Your task to perform on an android device: Do I have any events this weekend? Image 0: 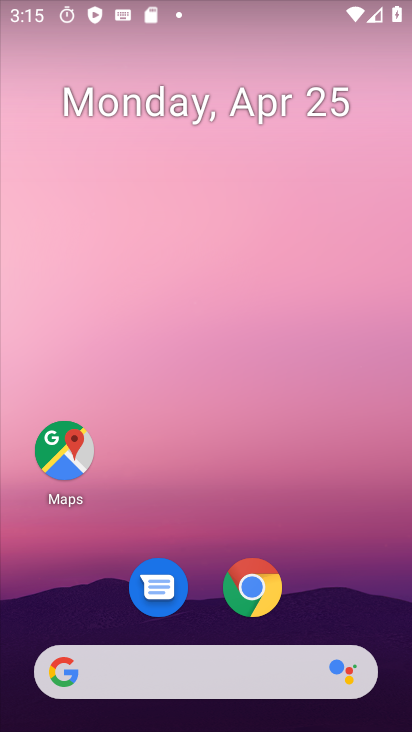
Step 0: drag from (348, 575) to (306, 126)
Your task to perform on an android device: Do I have any events this weekend? Image 1: 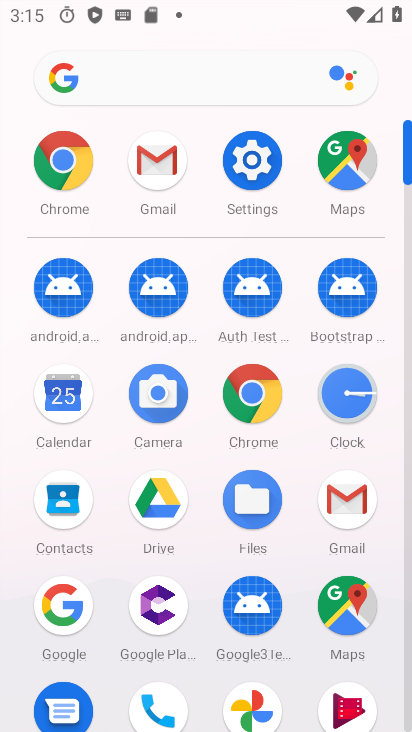
Step 1: click (63, 383)
Your task to perform on an android device: Do I have any events this weekend? Image 2: 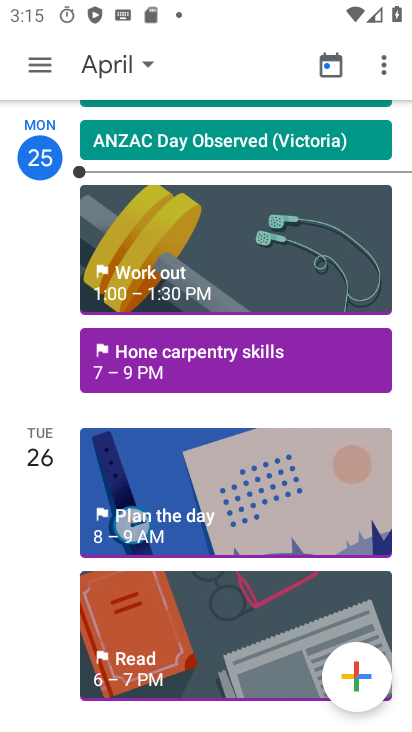
Step 2: click (116, 64)
Your task to perform on an android device: Do I have any events this weekend? Image 3: 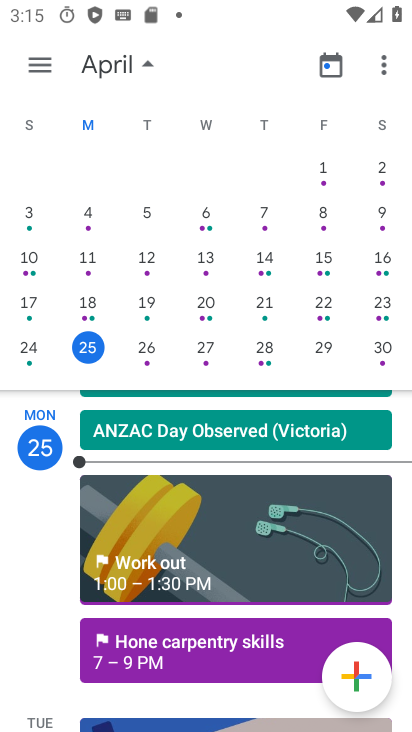
Step 3: task complete